Your task to perform on an android device: Search for the new Apple Watch on Best Buy Image 0: 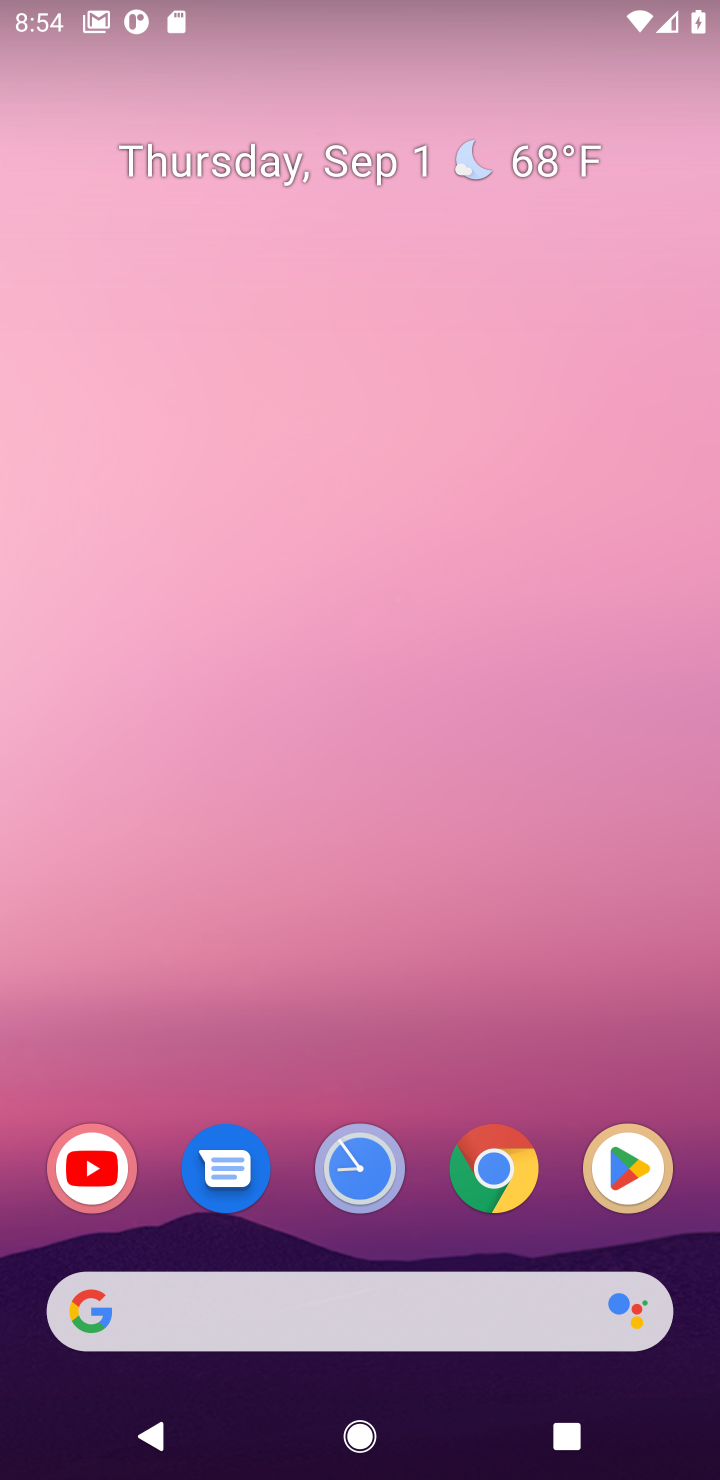
Step 0: drag from (367, 1050) to (402, 541)
Your task to perform on an android device: Search for the new Apple Watch on Best Buy Image 1: 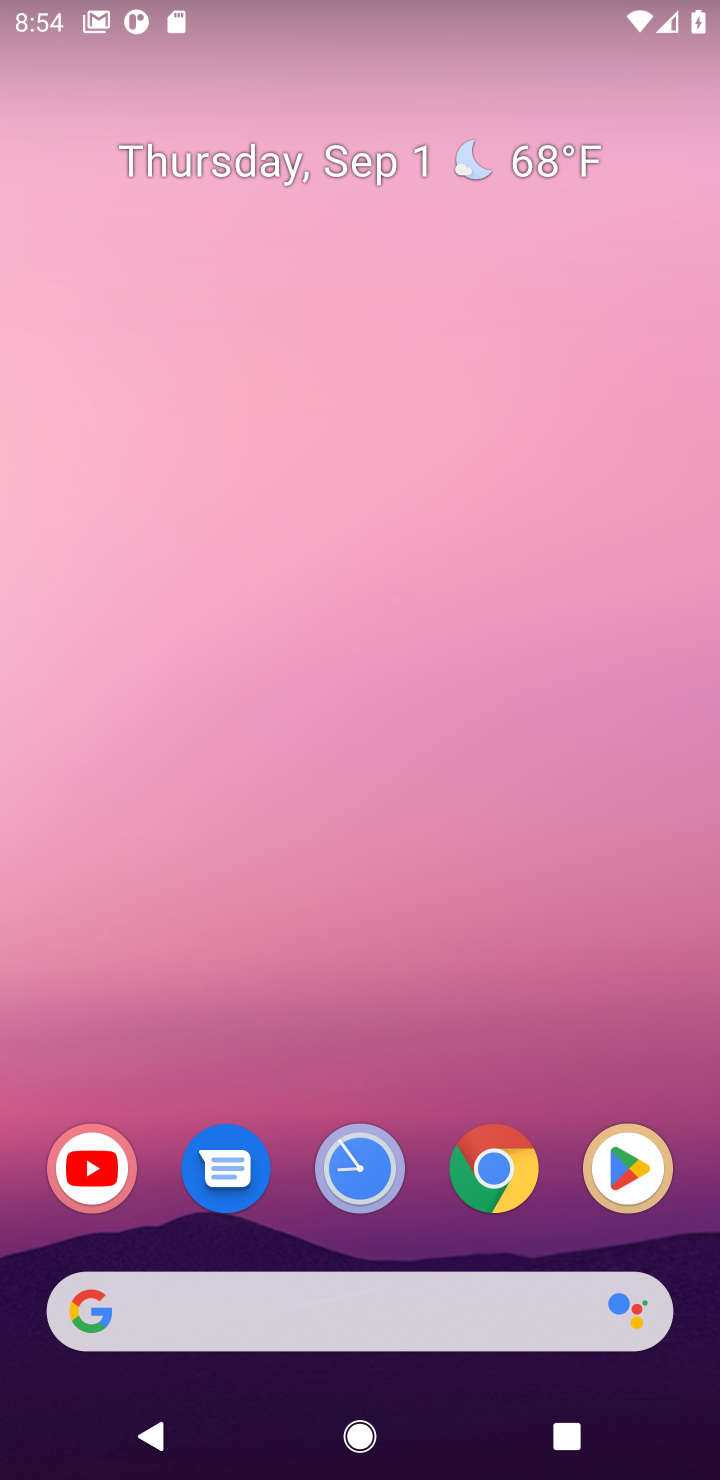
Step 1: click (485, 457)
Your task to perform on an android device: Search for the new Apple Watch on Best Buy Image 2: 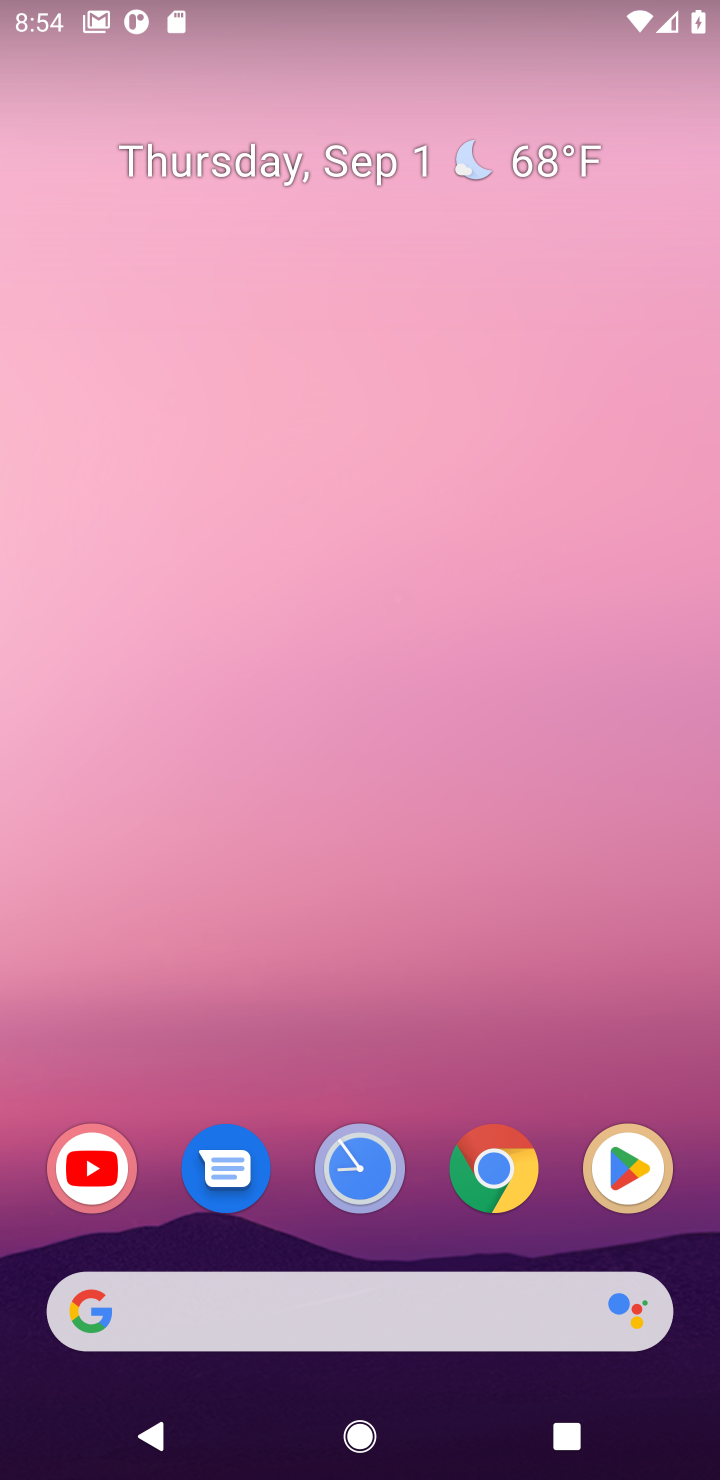
Step 2: drag from (323, 1175) to (404, 429)
Your task to perform on an android device: Search for the new Apple Watch on Best Buy Image 3: 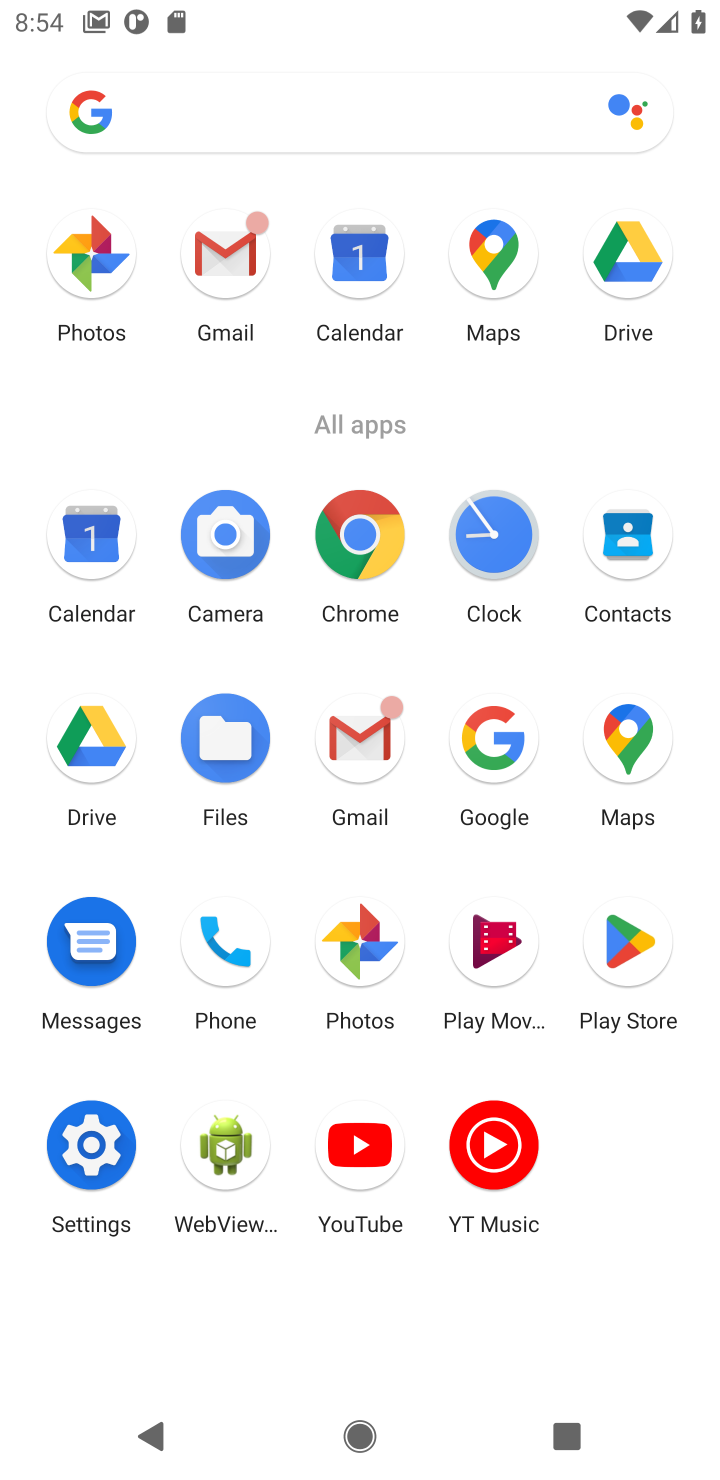
Step 3: click (477, 730)
Your task to perform on an android device: Search for the new Apple Watch on Best Buy Image 4: 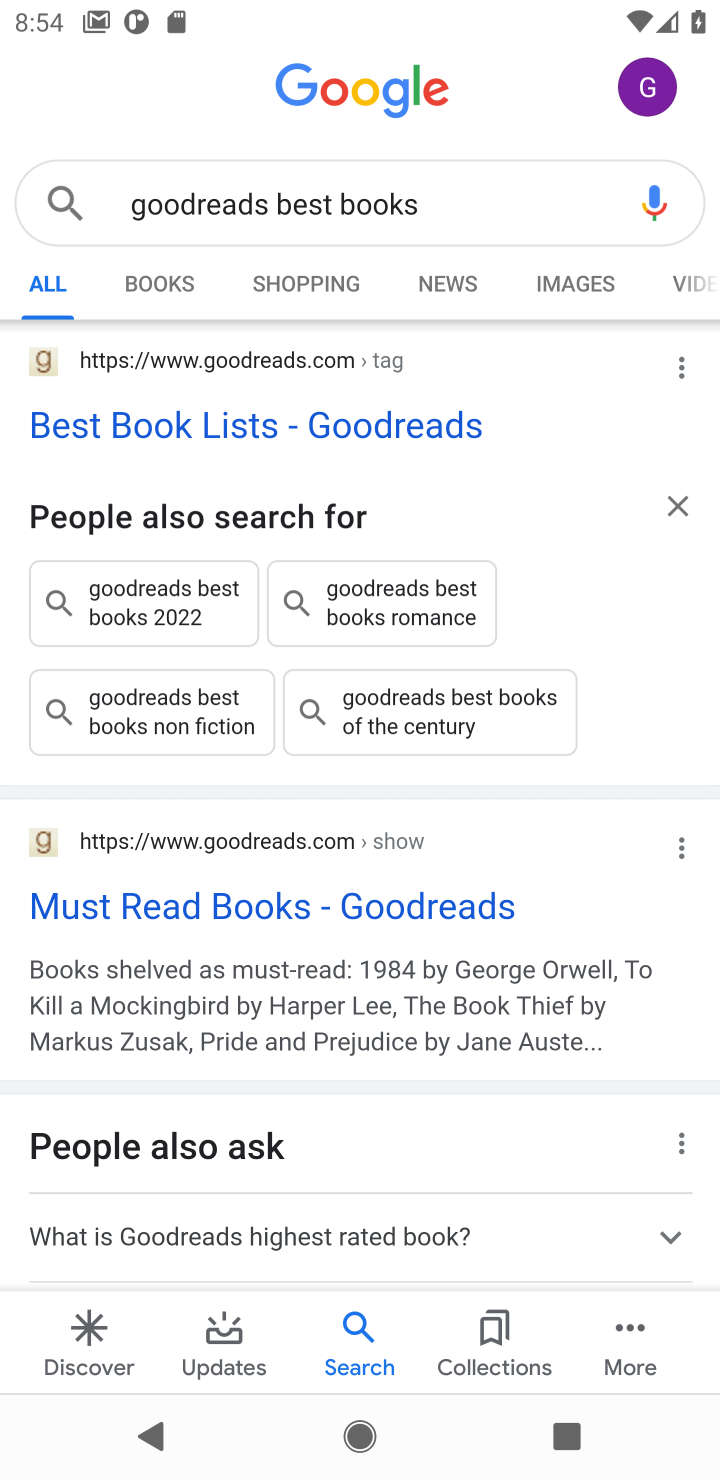
Step 4: click (491, 174)
Your task to perform on an android device: Search for the new Apple Watch on Best Buy Image 5: 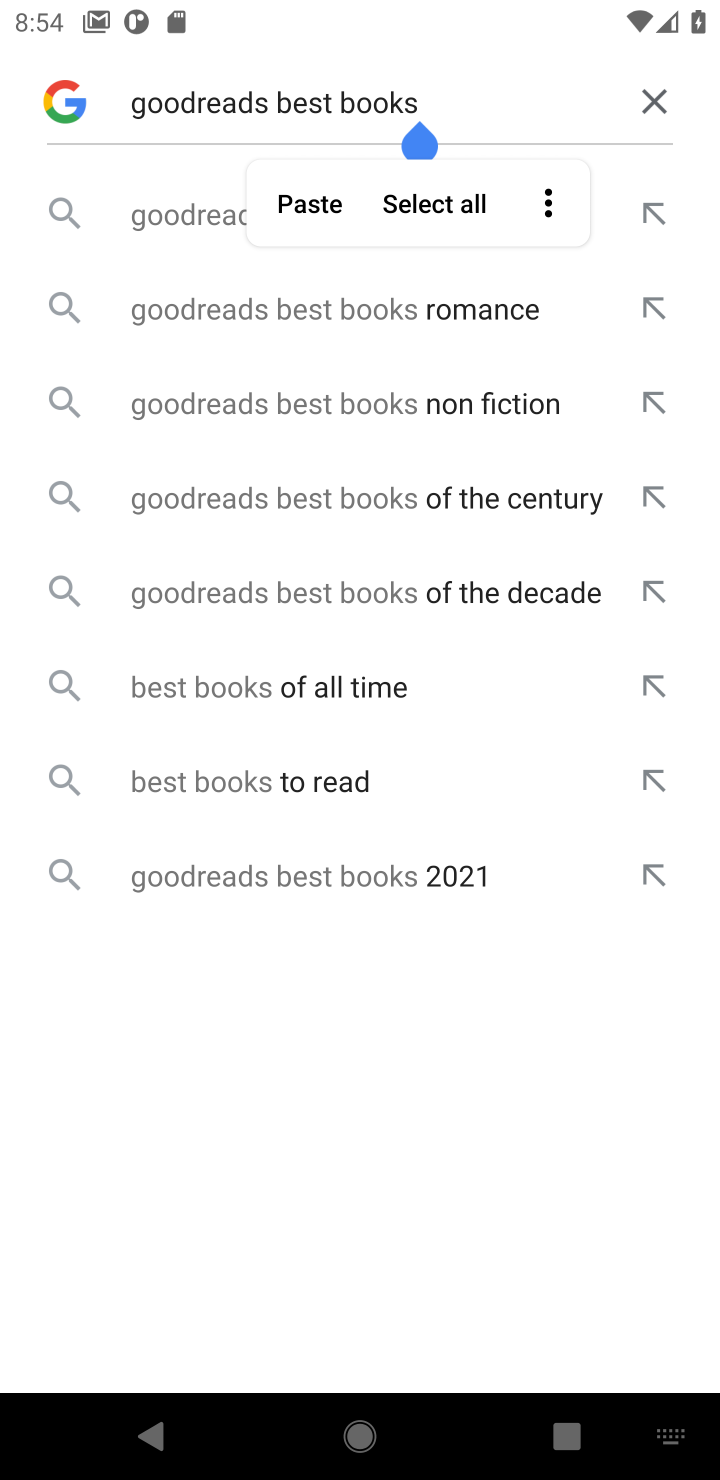
Step 5: click (647, 114)
Your task to perform on an android device: Search for the new Apple Watch on Best Buy Image 6: 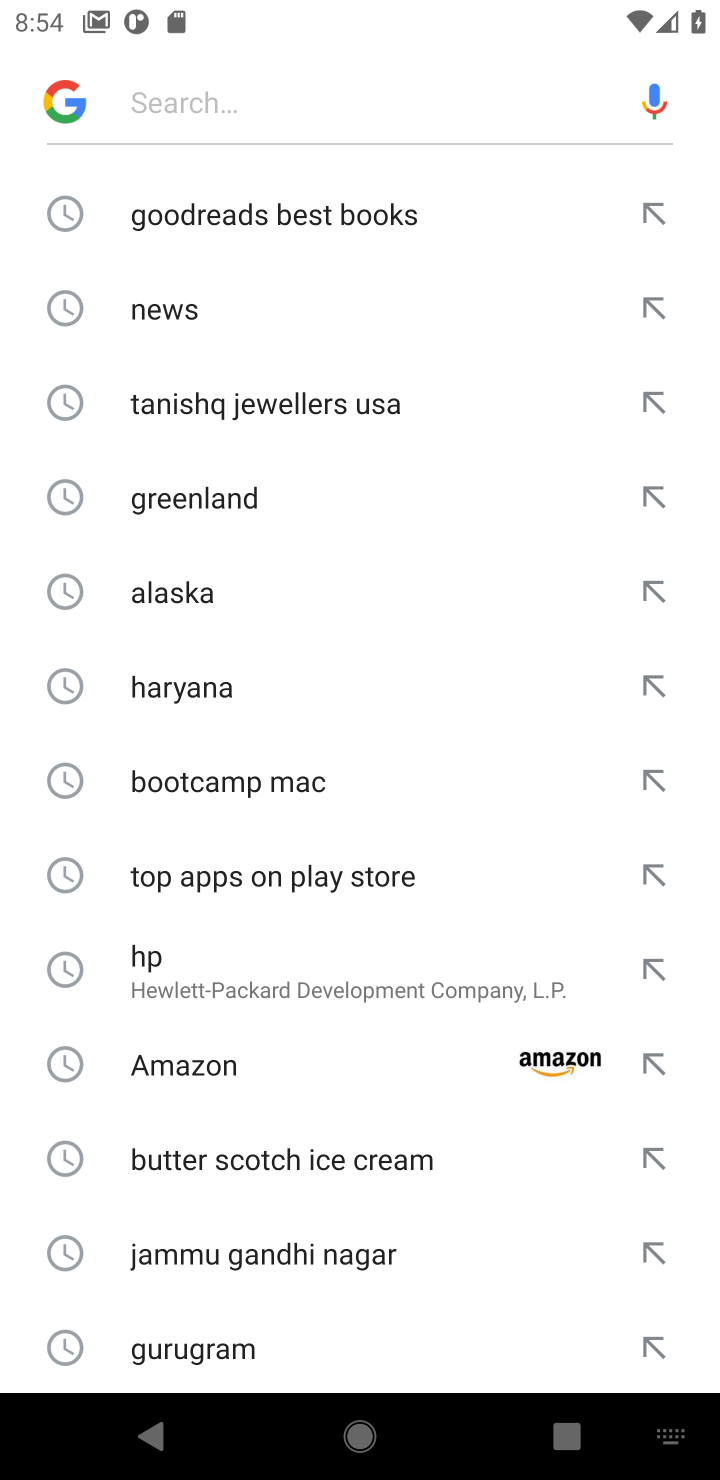
Step 6: click (374, 96)
Your task to perform on an android device: Search for the new Apple Watch on Best Buy Image 7: 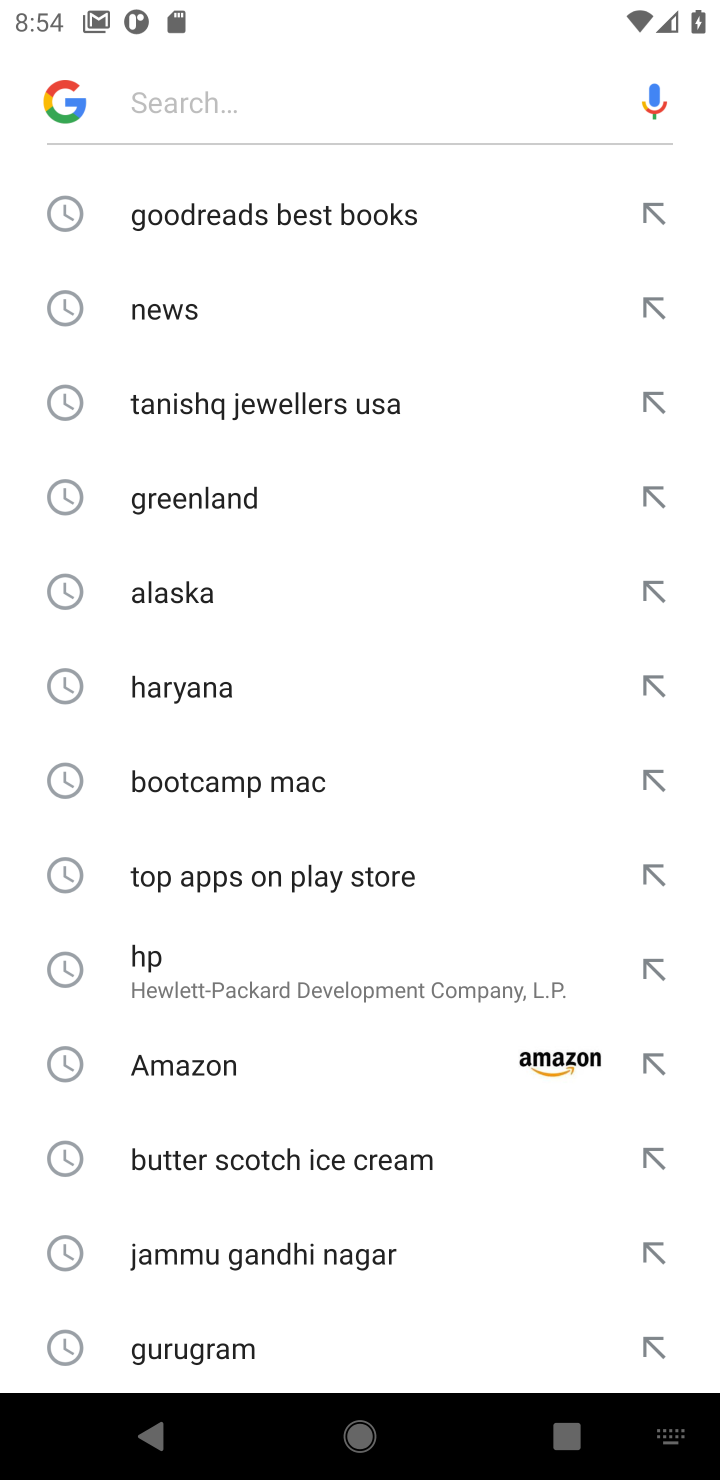
Step 7: type "Best Buy "
Your task to perform on an android device: Search for the new Apple Watch on Best Buy Image 8: 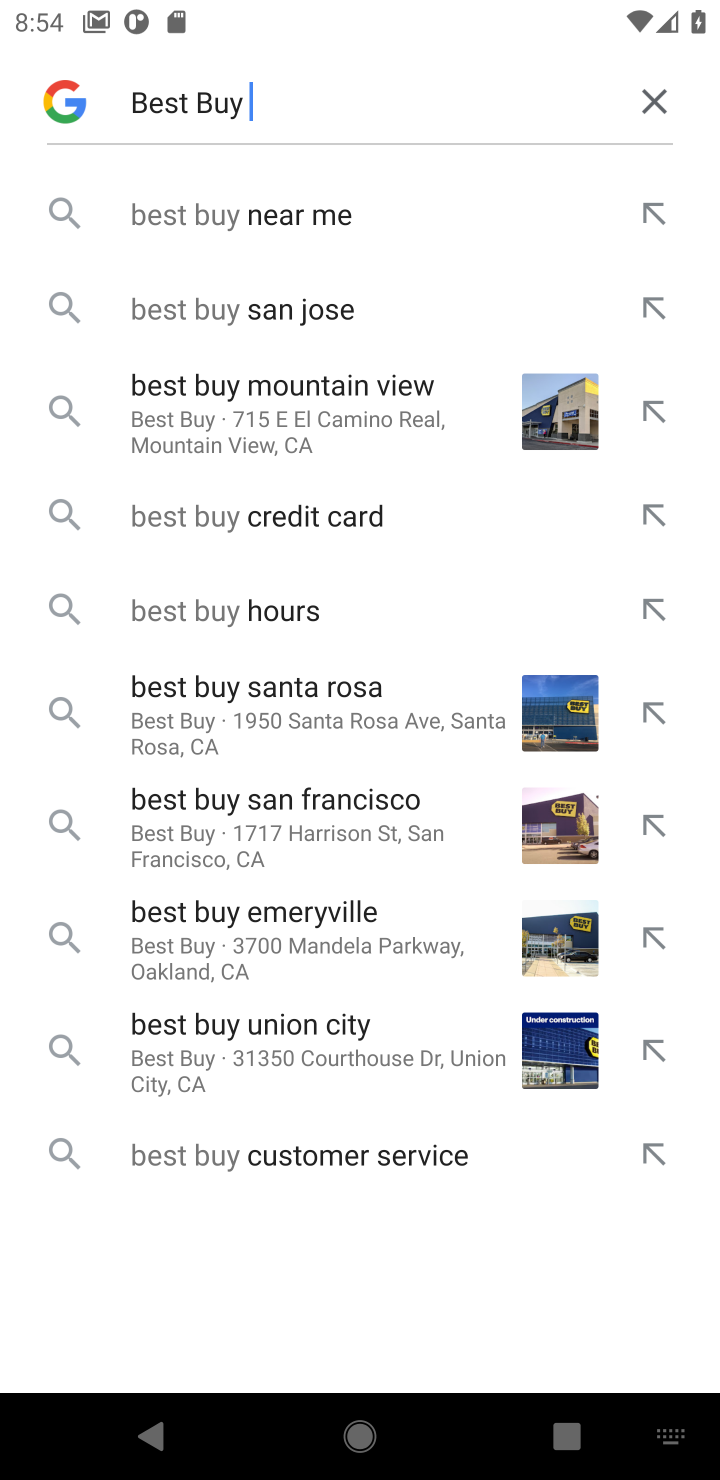
Step 8: click (312, 203)
Your task to perform on an android device: Search for the new Apple Watch on Best Buy Image 9: 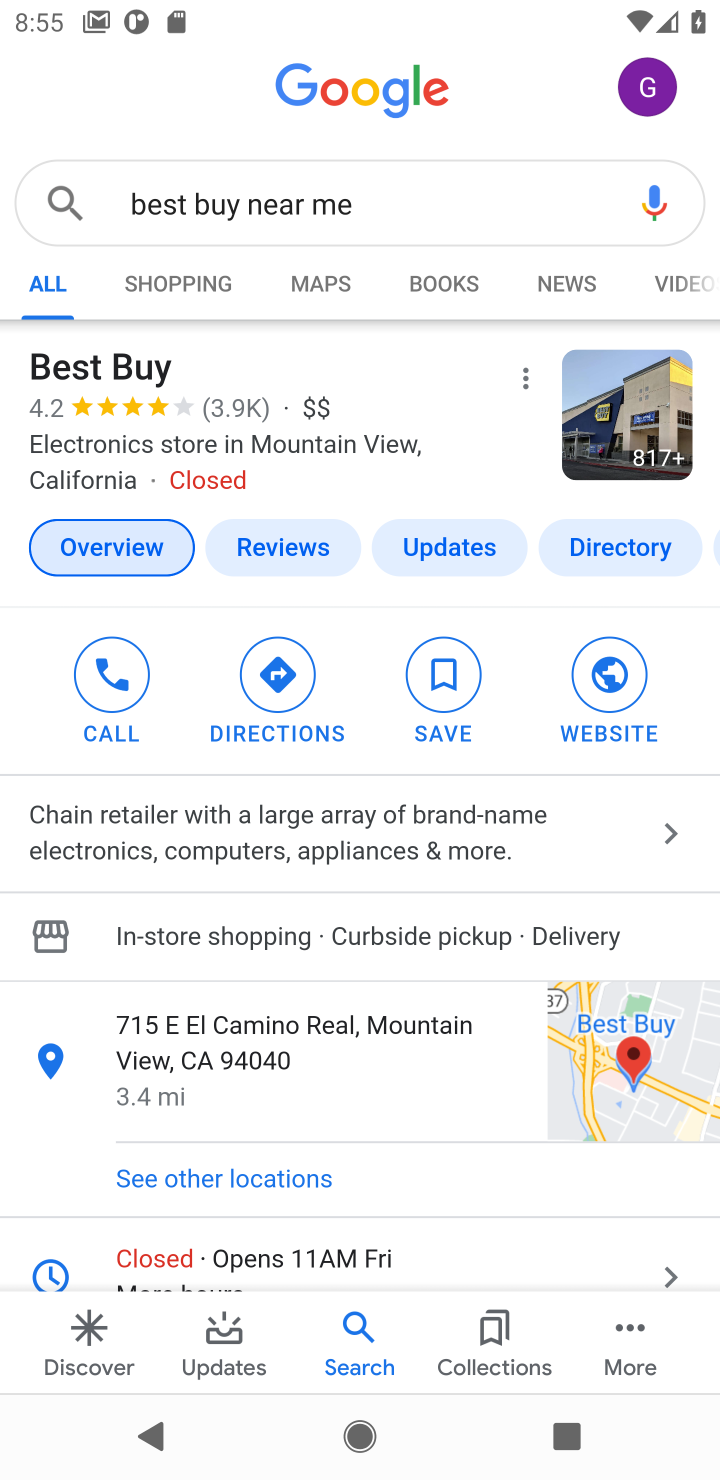
Step 9: drag from (234, 1026) to (470, 310)
Your task to perform on an android device: Search for the new Apple Watch on Best Buy Image 10: 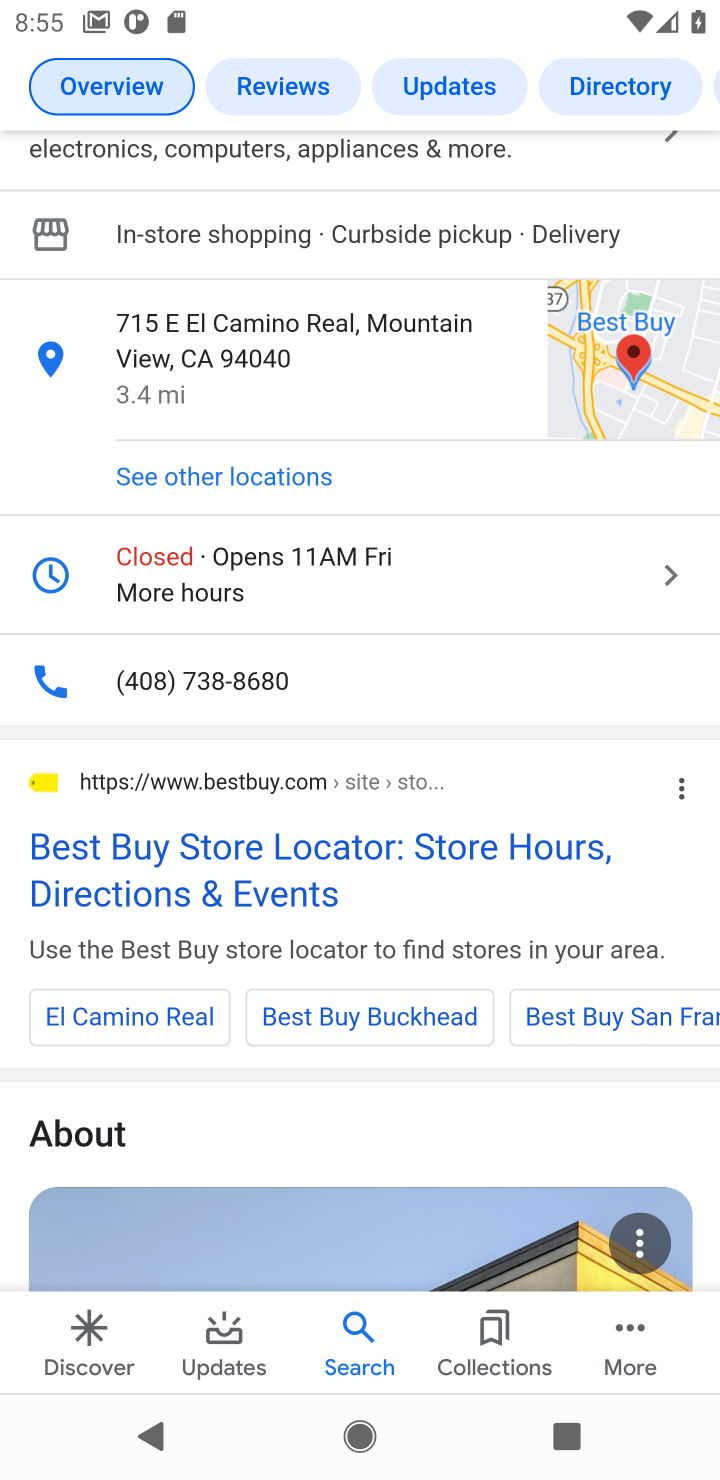
Step 10: click (159, 869)
Your task to perform on an android device: Search for the new Apple Watch on Best Buy Image 11: 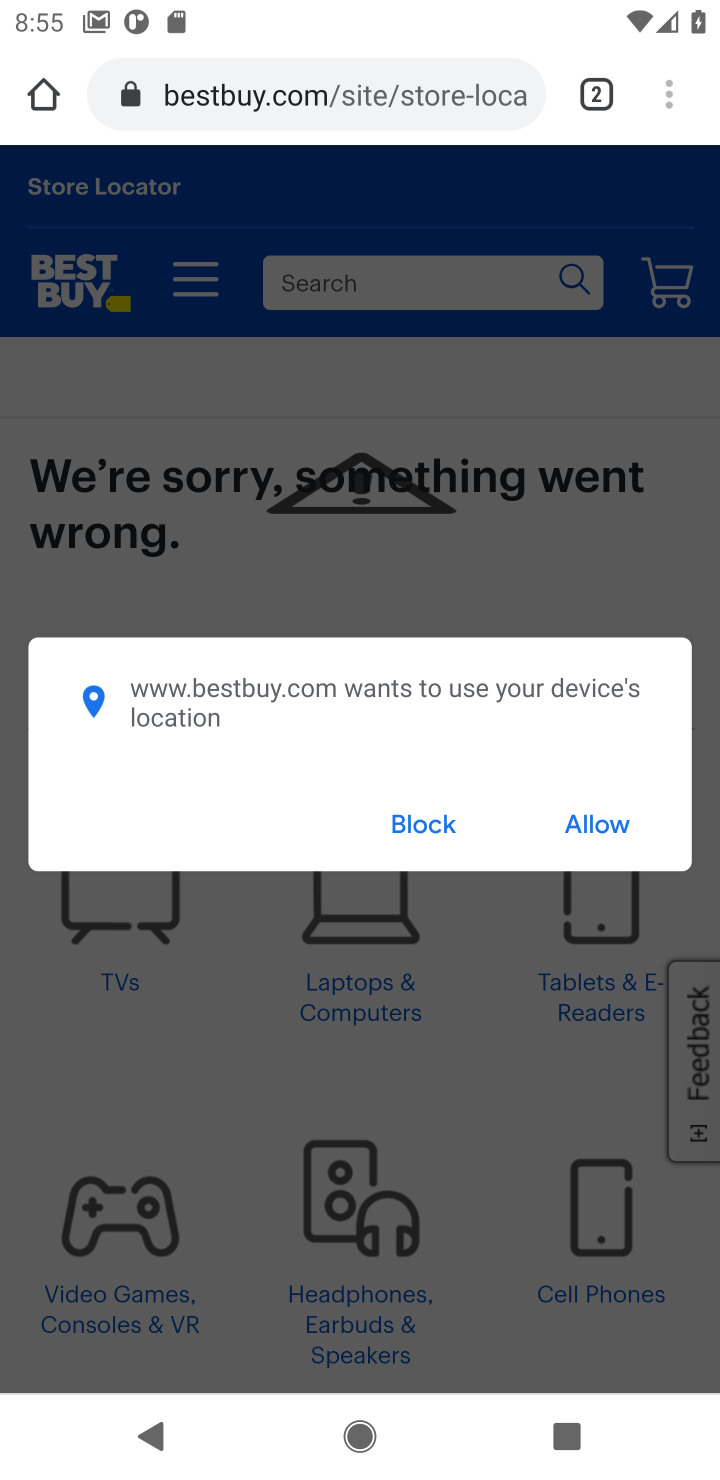
Step 11: click (612, 807)
Your task to perform on an android device: Search for the new Apple Watch on Best Buy Image 12: 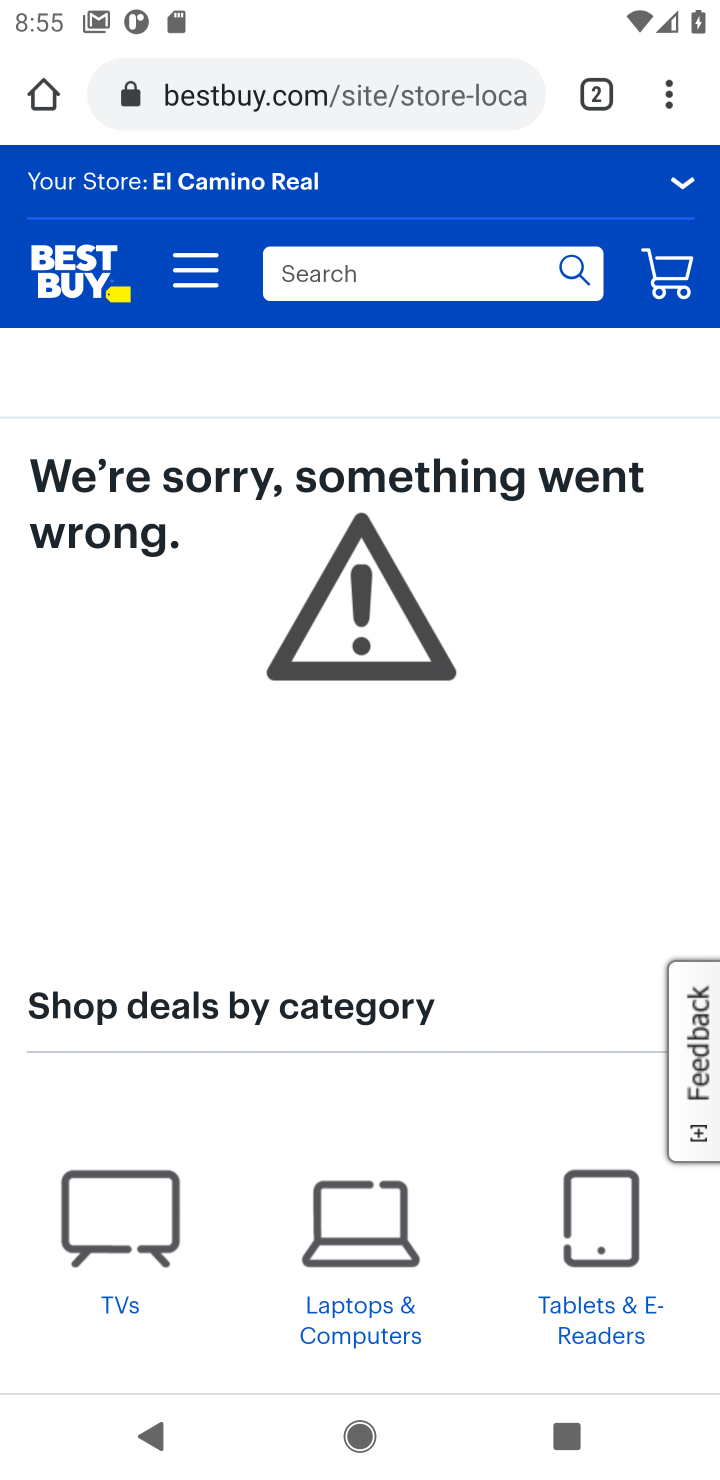
Step 12: click (414, 273)
Your task to perform on an android device: Search for the new Apple Watch on Best Buy Image 13: 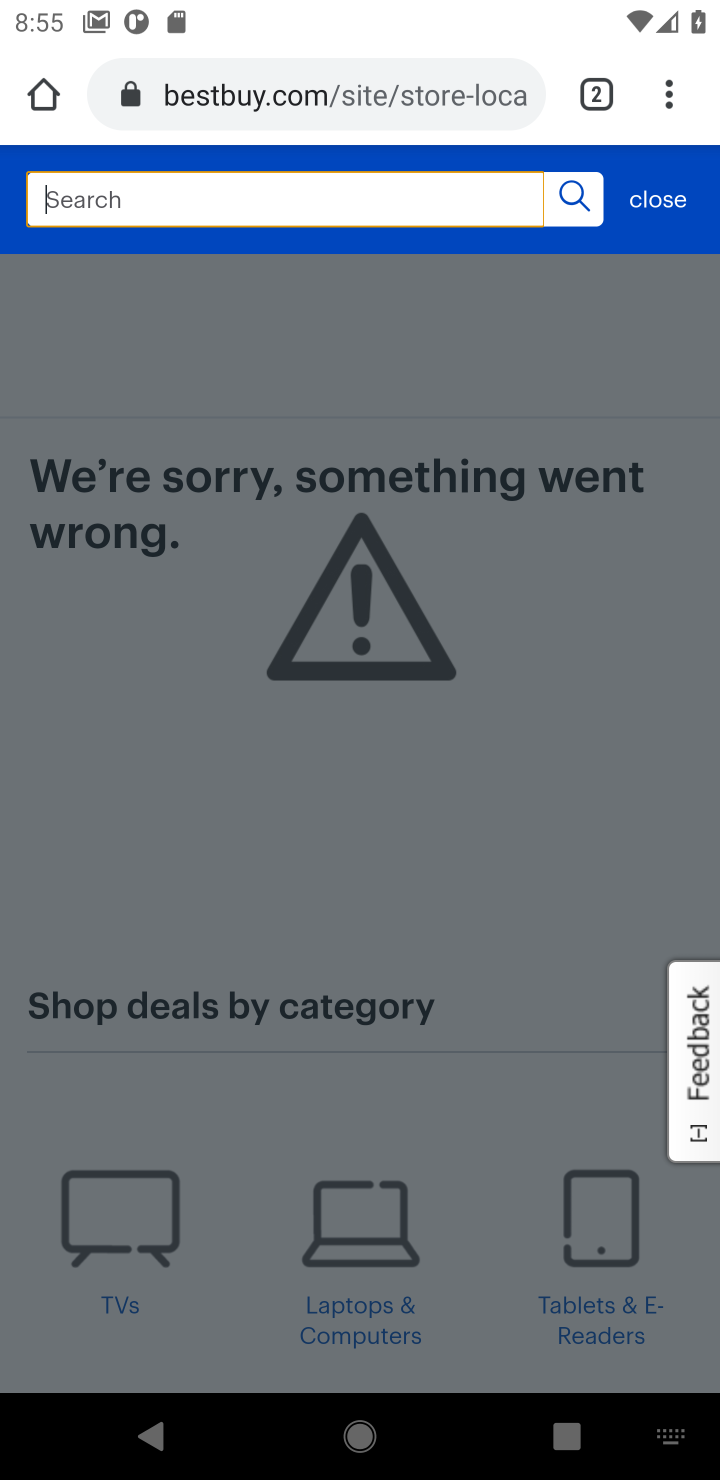
Step 13: type " Apple Watch  "
Your task to perform on an android device: Search for the new Apple Watch on Best Buy Image 14: 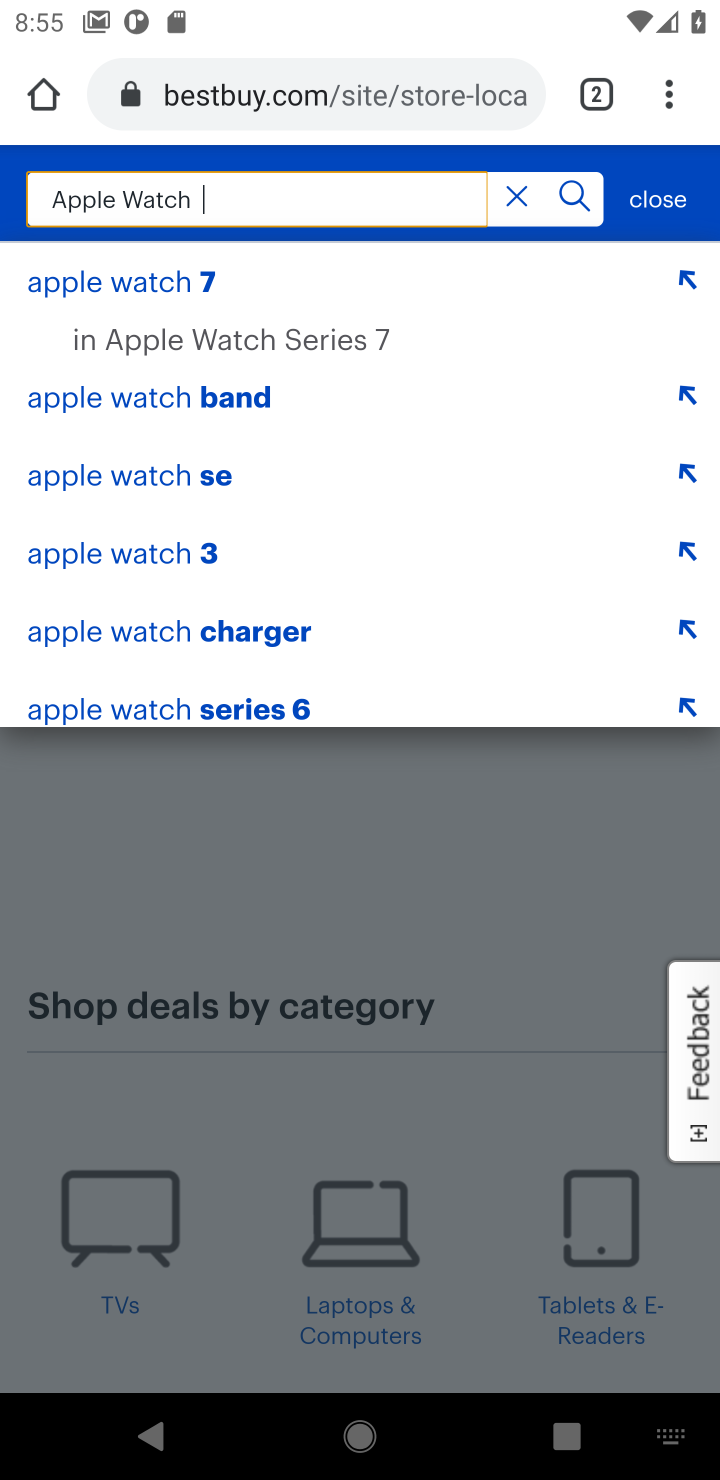
Step 14: click (157, 303)
Your task to perform on an android device: Search for the new Apple Watch on Best Buy Image 15: 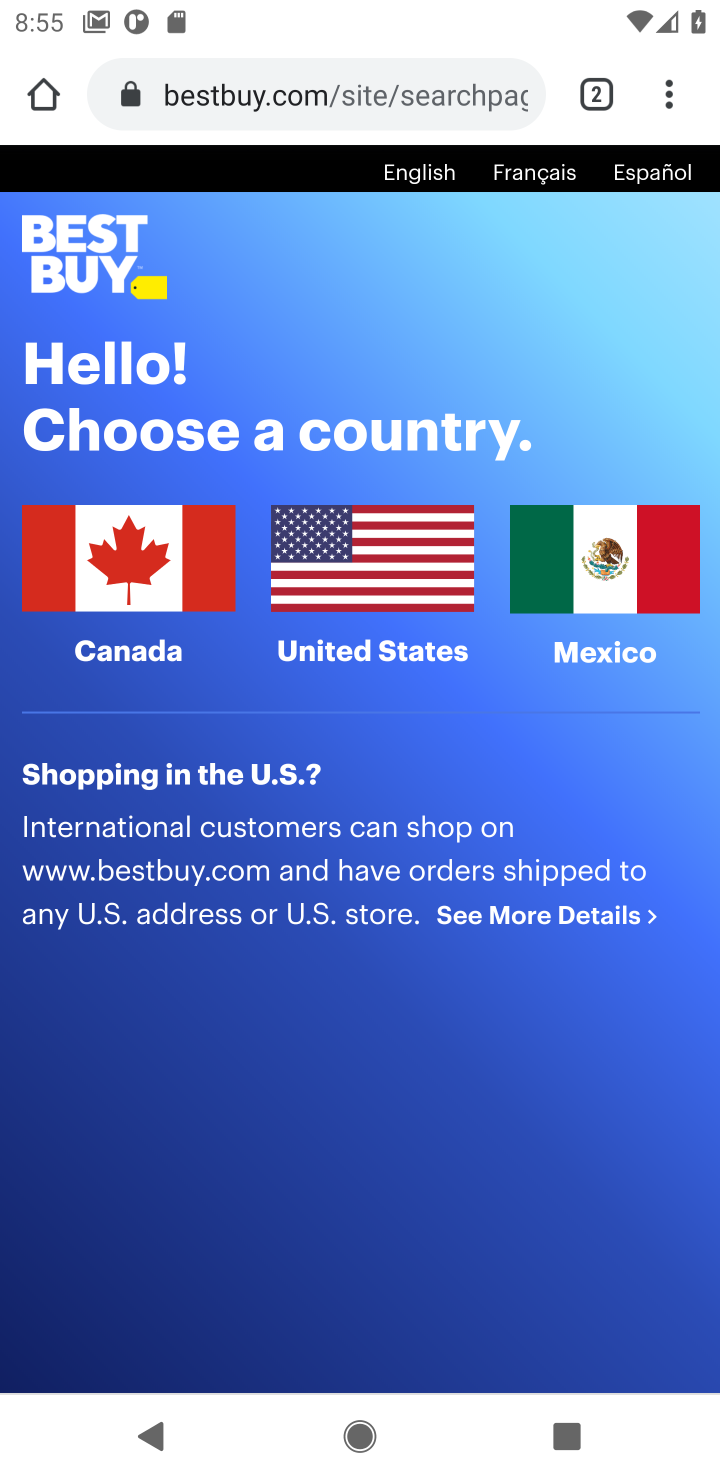
Step 15: click (368, 570)
Your task to perform on an android device: Search for the new Apple Watch on Best Buy Image 16: 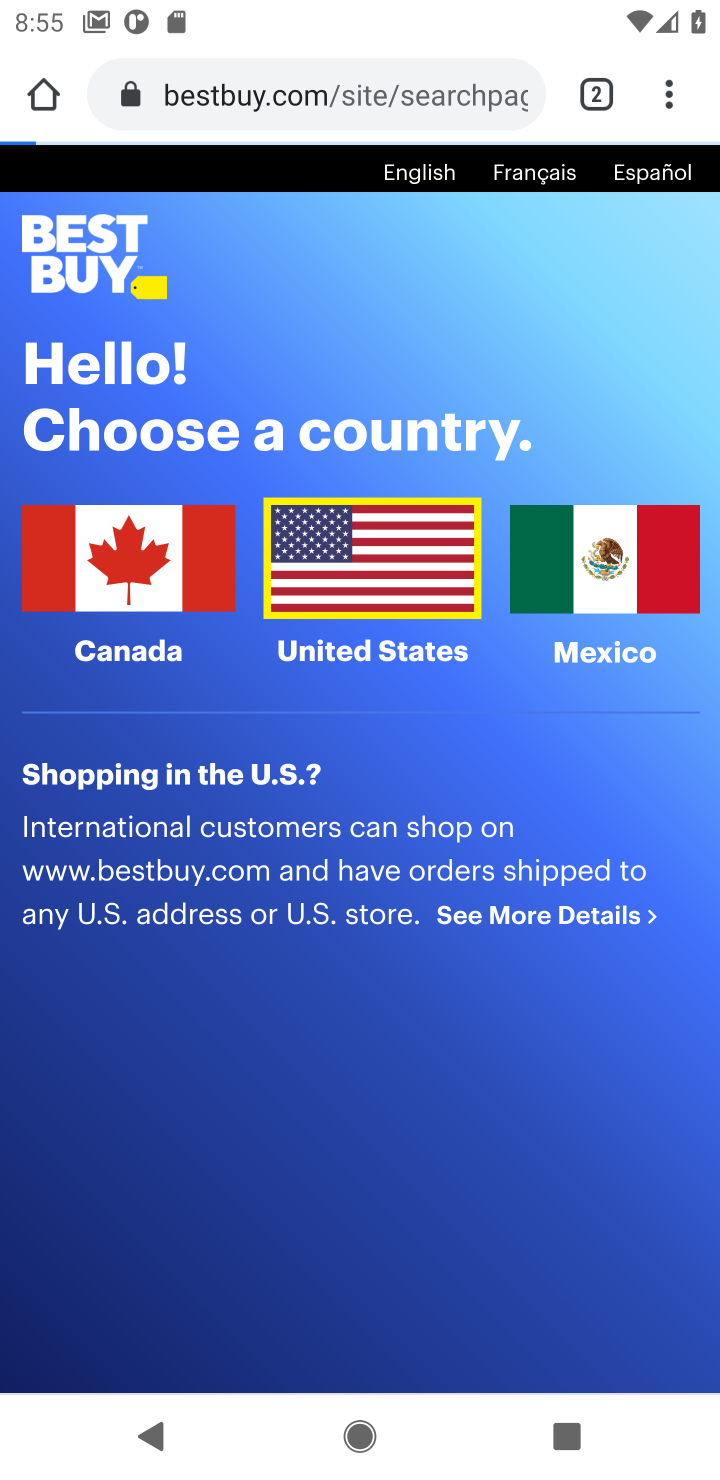
Step 16: click (376, 570)
Your task to perform on an android device: Search for the new Apple Watch on Best Buy Image 17: 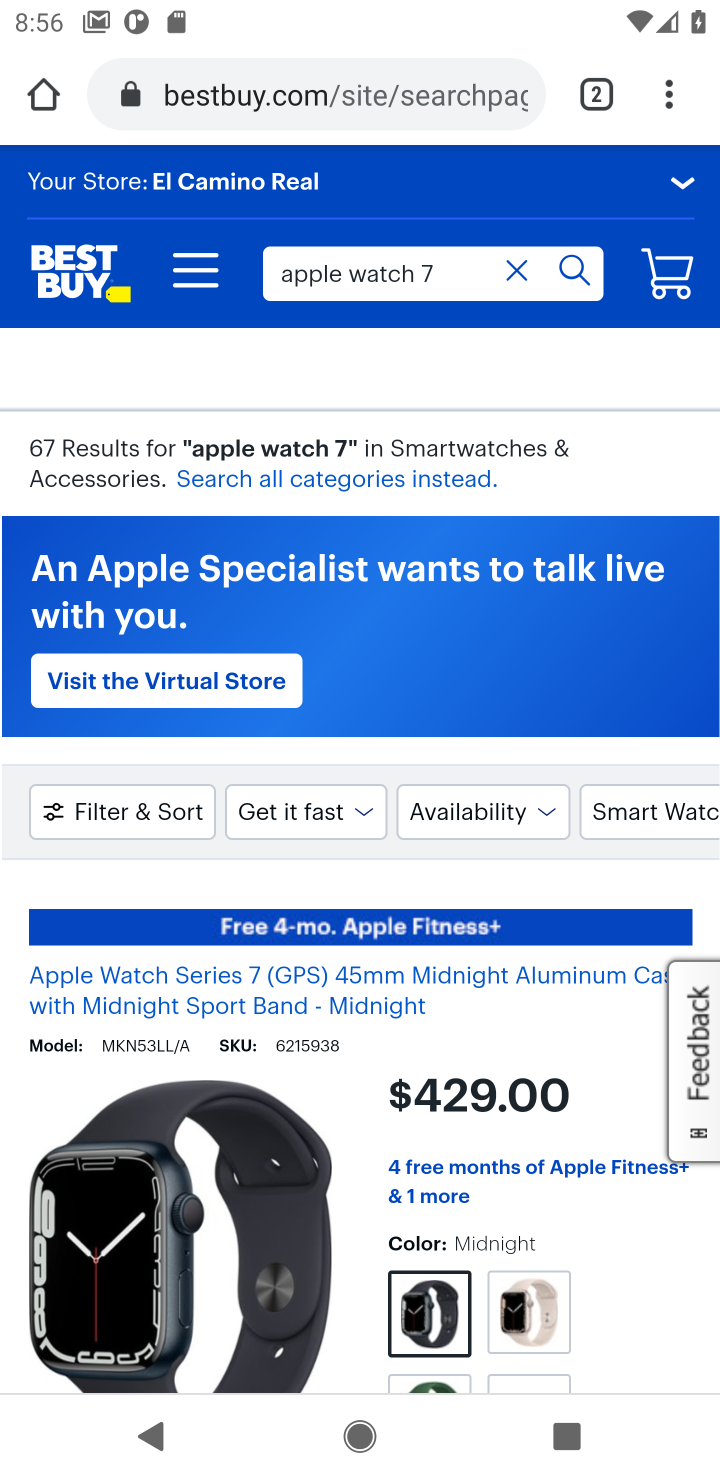
Step 17: task complete